Your task to perform on an android device: Open Chrome and go to the settings page Image 0: 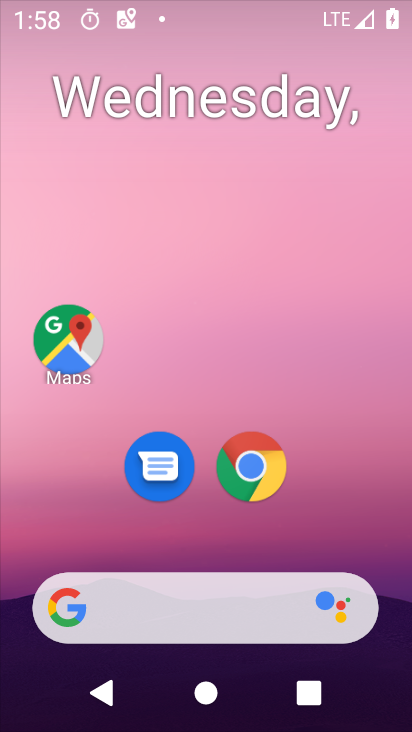
Step 0: drag from (334, 515) to (317, 259)
Your task to perform on an android device: Open Chrome and go to the settings page Image 1: 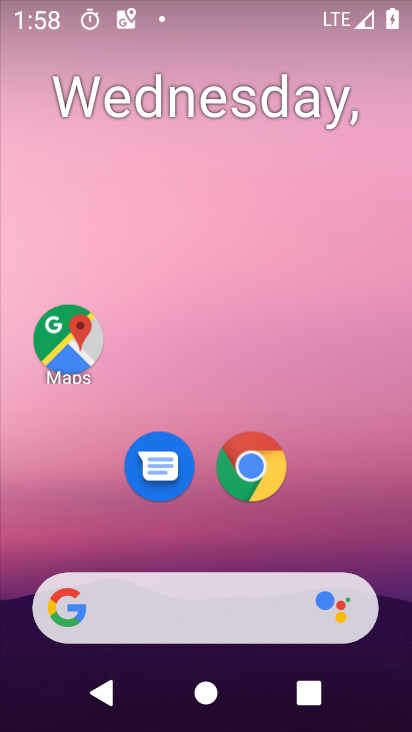
Step 1: click (260, 476)
Your task to perform on an android device: Open Chrome and go to the settings page Image 2: 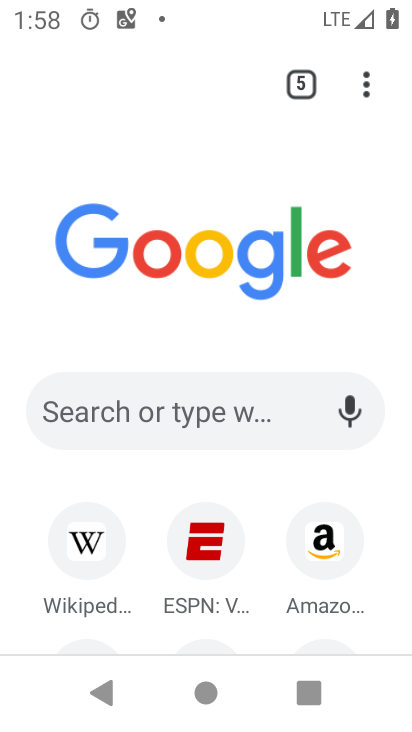
Step 2: click (359, 92)
Your task to perform on an android device: Open Chrome and go to the settings page Image 3: 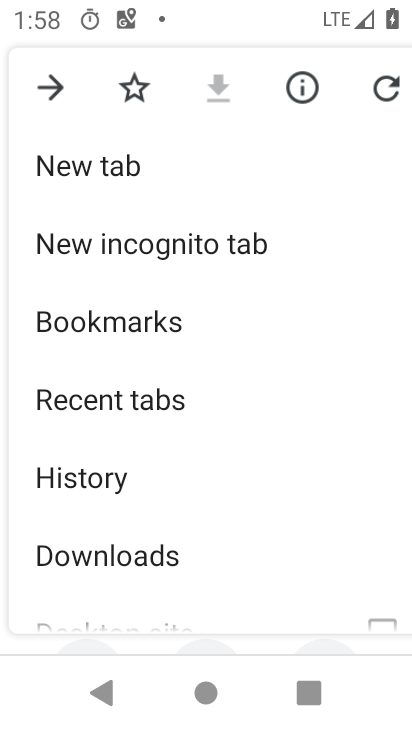
Step 3: drag from (247, 474) to (231, 170)
Your task to perform on an android device: Open Chrome and go to the settings page Image 4: 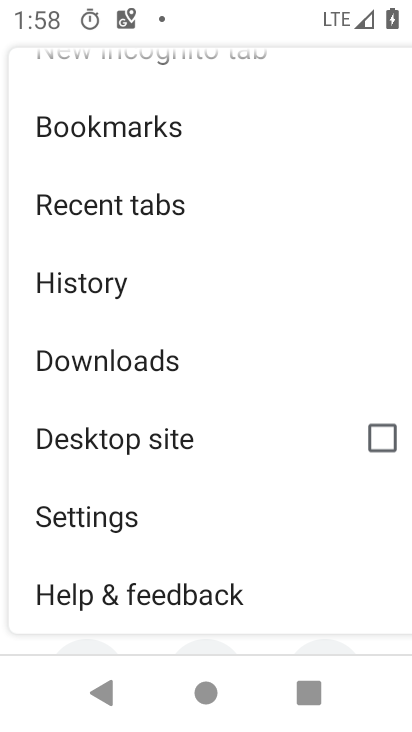
Step 4: click (124, 508)
Your task to perform on an android device: Open Chrome and go to the settings page Image 5: 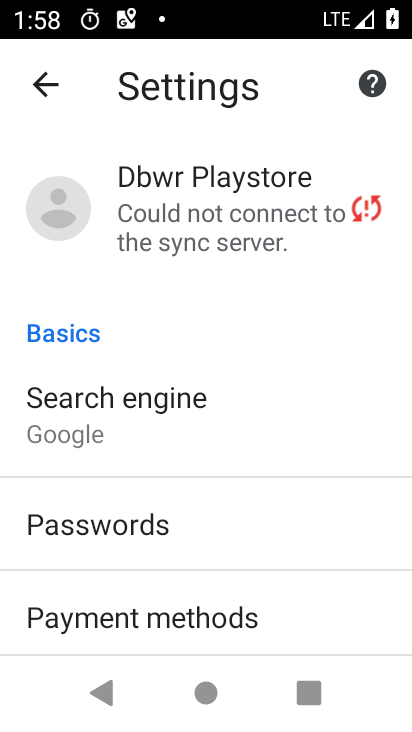
Step 5: task complete